Your task to perform on an android device: Open maps Image 0: 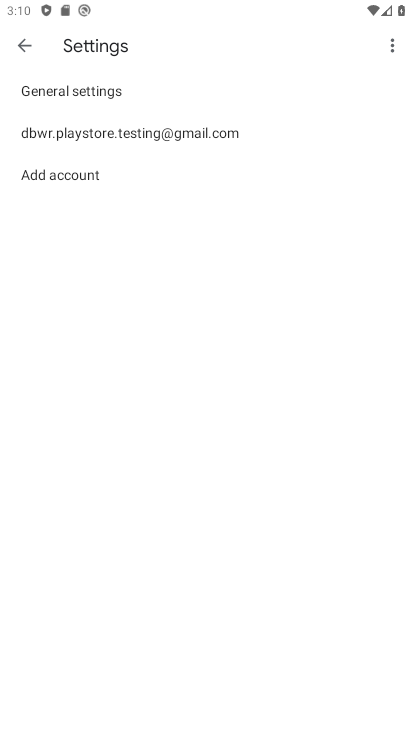
Step 0: press home button
Your task to perform on an android device: Open maps Image 1: 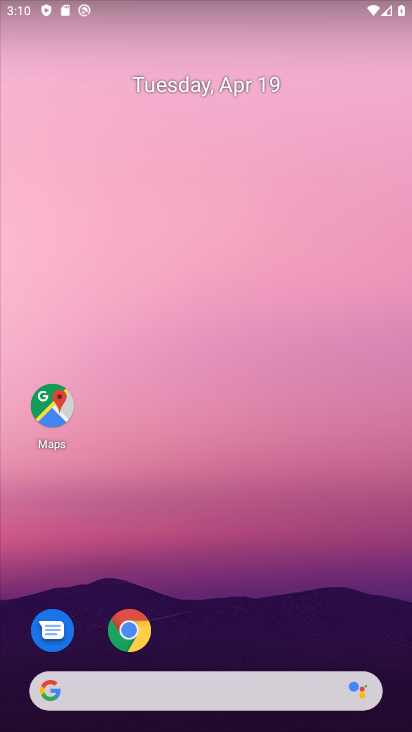
Step 1: drag from (259, 497) to (255, 141)
Your task to perform on an android device: Open maps Image 2: 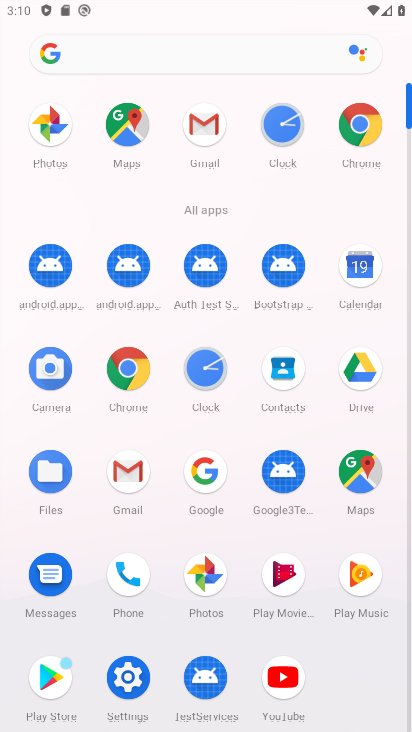
Step 2: click (129, 142)
Your task to perform on an android device: Open maps Image 3: 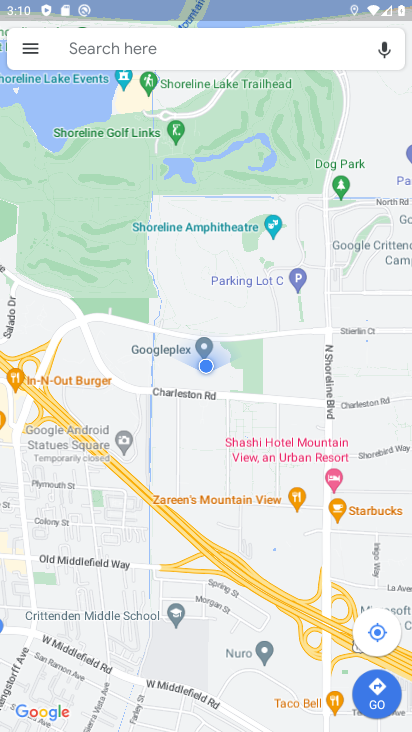
Step 3: task complete